Your task to perform on an android device: Go to display settings Image 0: 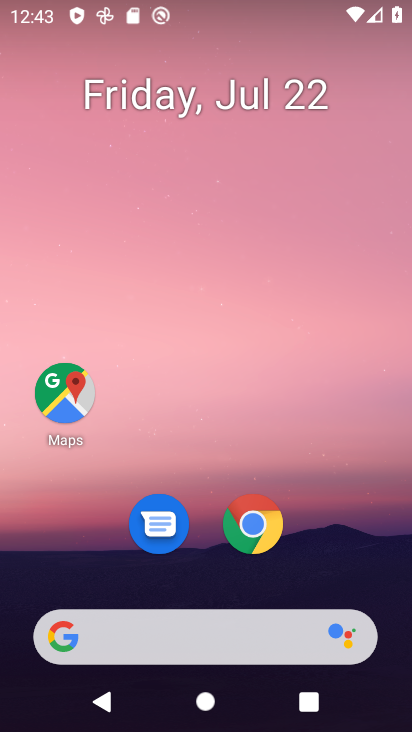
Step 0: drag from (185, 648) to (339, 7)
Your task to perform on an android device: Go to display settings Image 1: 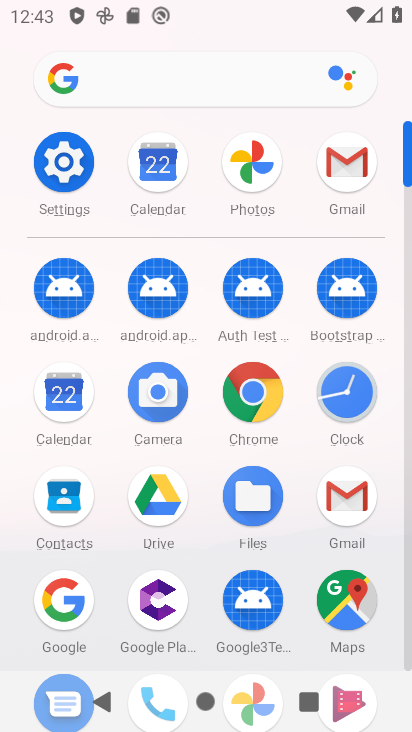
Step 1: click (57, 166)
Your task to perform on an android device: Go to display settings Image 2: 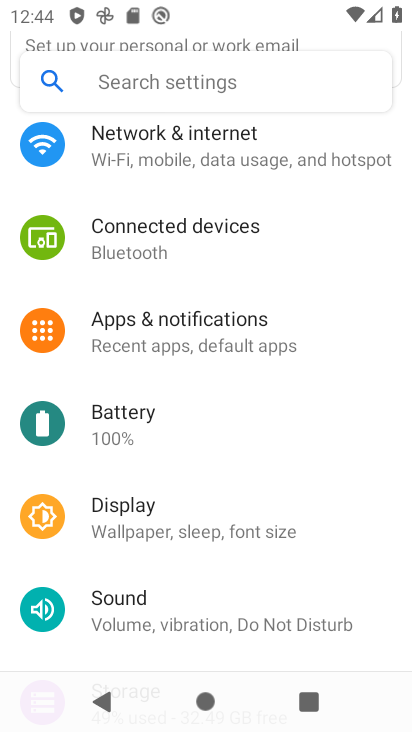
Step 2: click (181, 522)
Your task to perform on an android device: Go to display settings Image 3: 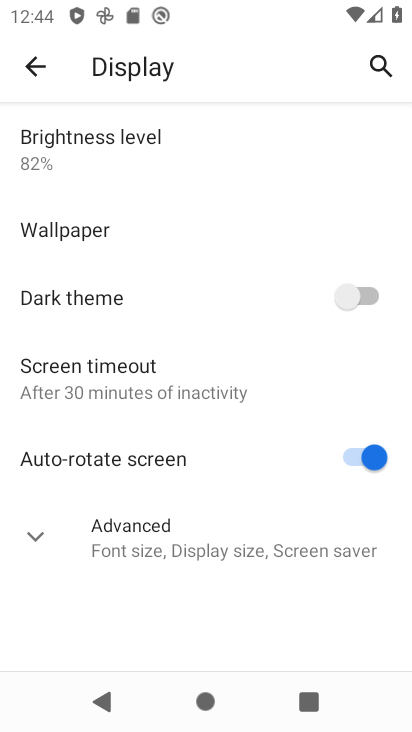
Step 3: task complete